Your task to perform on an android device: Add "panasonic triple a" to the cart on newegg, then select checkout. Image 0: 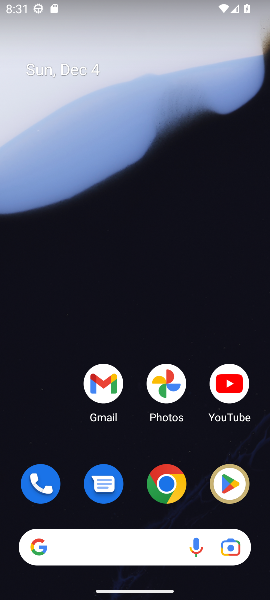
Step 0: click (169, 487)
Your task to perform on an android device: Add "panasonic triple a" to the cart on newegg, then select checkout. Image 1: 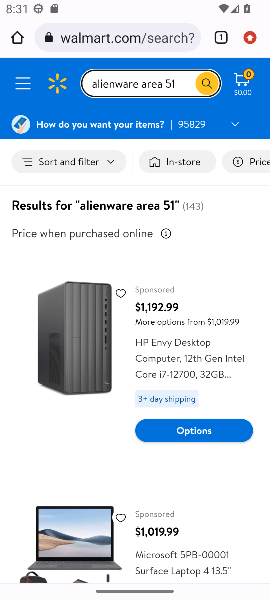
Step 1: click (117, 31)
Your task to perform on an android device: Add "panasonic triple a" to the cart on newegg, then select checkout. Image 2: 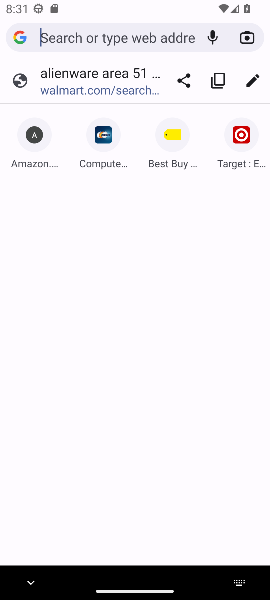
Step 2: click (100, 157)
Your task to perform on an android device: Add "panasonic triple a" to the cart on newegg, then select checkout. Image 3: 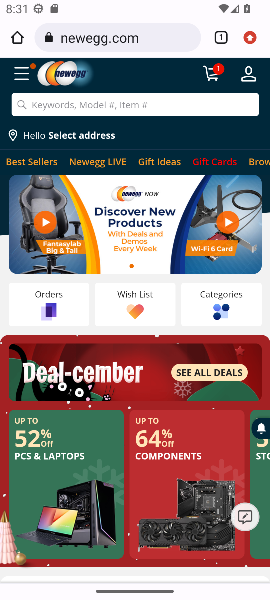
Step 3: click (57, 105)
Your task to perform on an android device: Add "panasonic triple a" to the cart on newegg, then select checkout. Image 4: 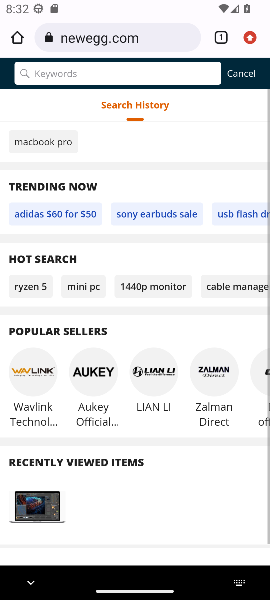
Step 4: type "panasonic triple a"
Your task to perform on an android device: Add "panasonic triple a" to the cart on newegg, then select checkout. Image 5: 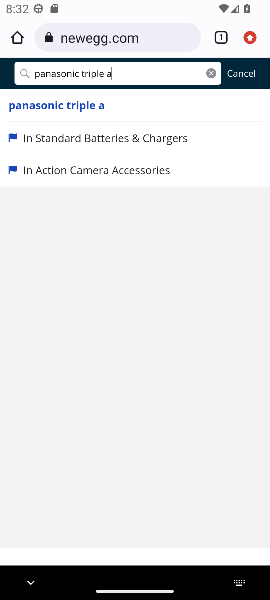
Step 5: click (70, 107)
Your task to perform on an android device: Add "panasonic triple a" to the cart on newegg, then select checkout. Image 6: 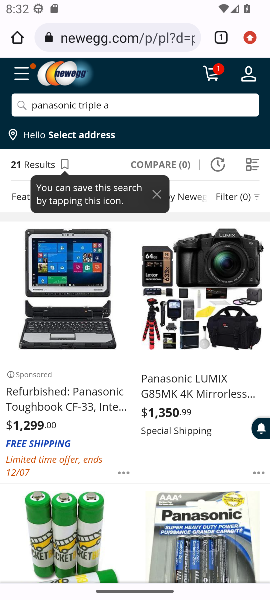
Step 6: drag from (122, 357) to (126, 227)
Your task to perform on an android device: Add "panasonic triple a" to the cart on newegg, then select checkout. Image 7: 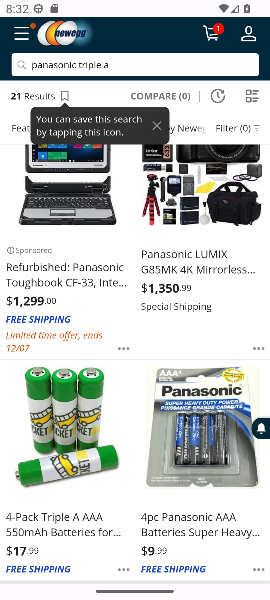
Step 7: drag from (142, 476) to (153, 319)
Your task to perform on an android device: Add "panasonic triple a" to the cart on newegg, then select checkout. Image 8: 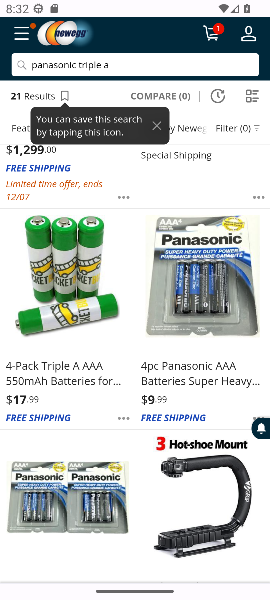
Step 8: click (239, 333)
Your task to perform on an android device: Add "panasonic triple a" to the cart on newegg, then select checkout. Image 9: 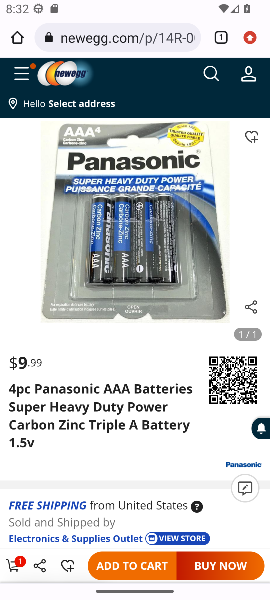
Step 9: drag from (77, 451) to (93, 335)
Your task to perform on an android device: Add "panasonic triple a" to the cart on newegg, then select checkout. Image 10: 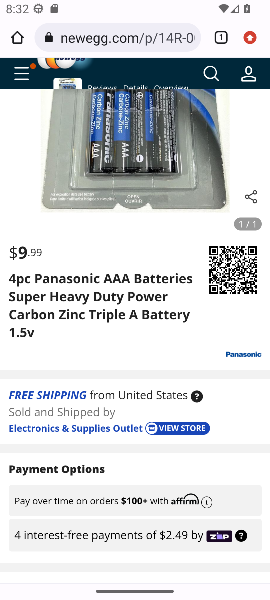
Step 10: click (132, 581)
Your task to perform on an android device: Add "panasonic triple a" to the cart on newegg, then select checkout. Image 11: 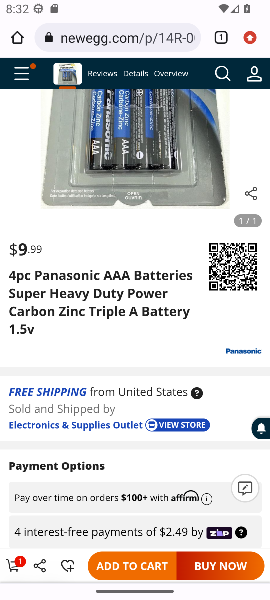
Step 11: click (132, 569)
Your task to perform on an android device: Add "panasonic triple a" to the cart on newegg, then select checkout. Image 12: 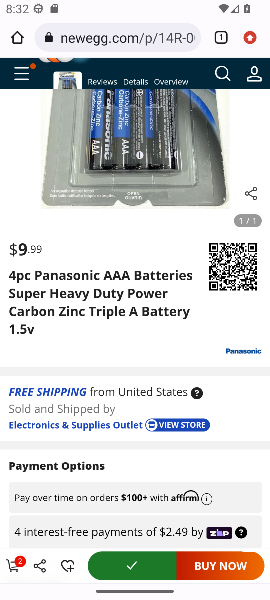
Step 12: click (12, 568)
Your task to perform on an android device: Add "panasonic triple a" to the cart on newegg, then select checkout. Image 13: 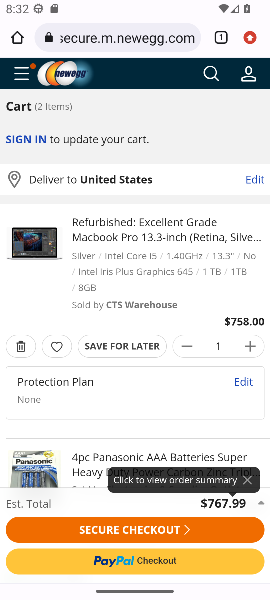
Step 13: click (120, 541)
Your task to perform on an android device: Add "panasonic triple a" to the cart on newegg, then select checkout. Image 14: 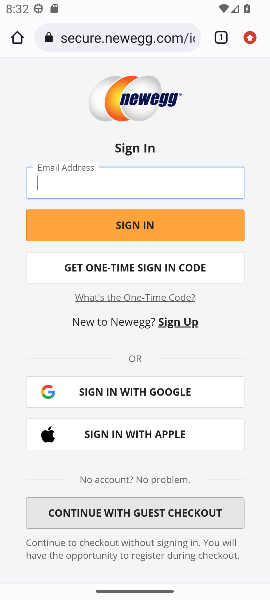
Step 14: task complete